Your task to perform on an android device: Go to settings Image 0: 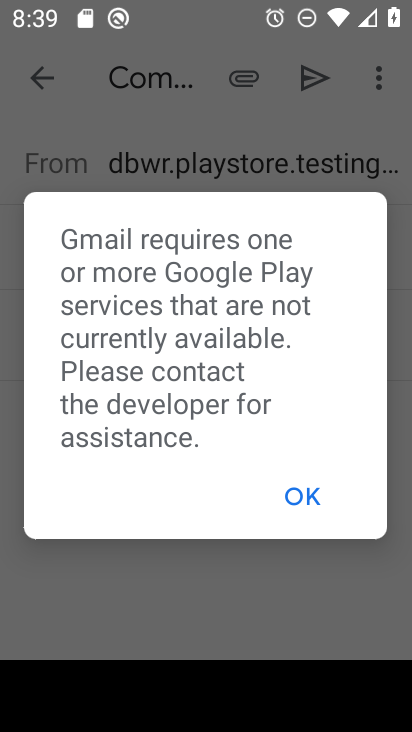
Step 0: press home button
Your task to perform on an android device: Go to settings Image 1: 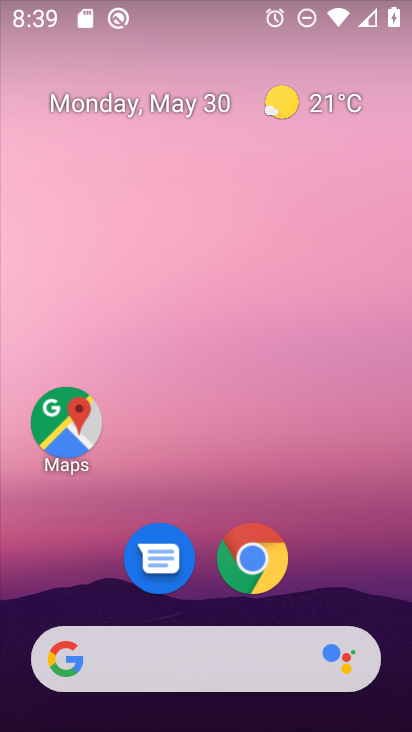
Step 1: drag from (358, 515) to (211, 97)
Your task to perform on an android device: Go to settings Image 2: 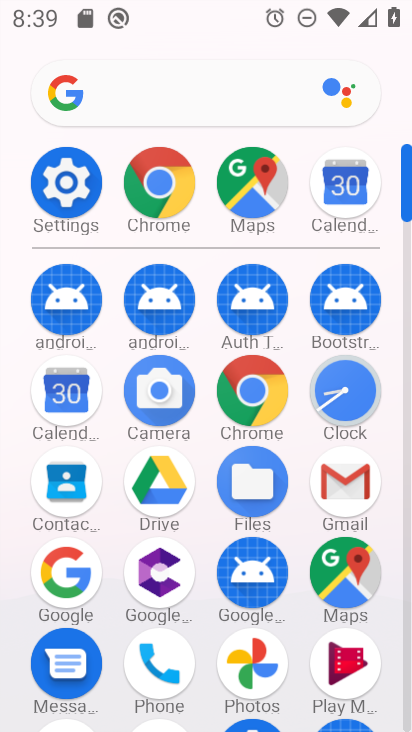
Step 2: click (60, 184)
Your task to perform on an android device: Go to settings Image 3: 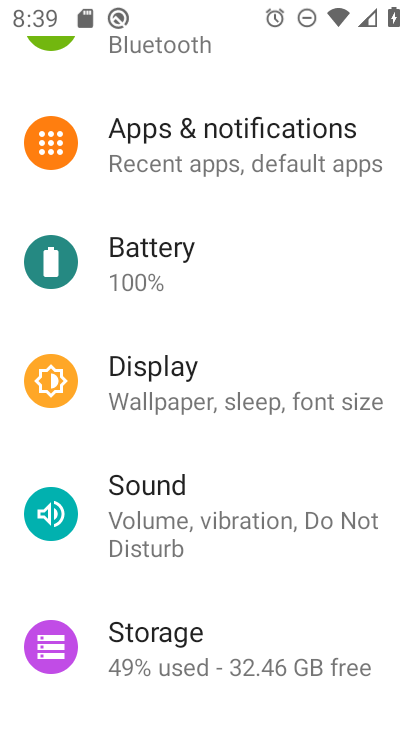
Step 3: task complete